Your task to perform on an android device: check google app version Image 0: 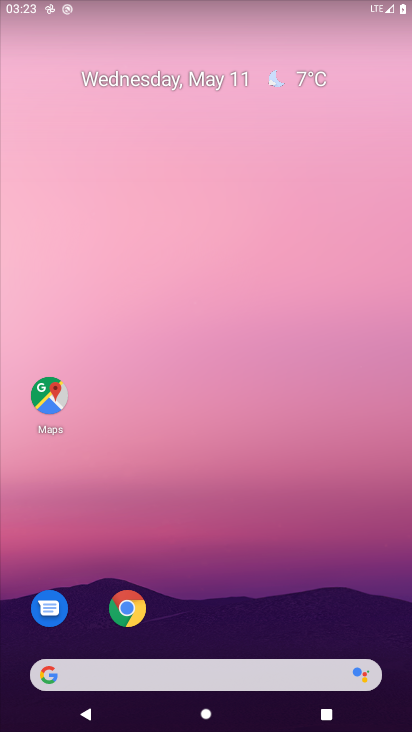
Step 0: drag from (208, 614) to (280, 55)
Your task to perform on an android device: check google app version Image 1: 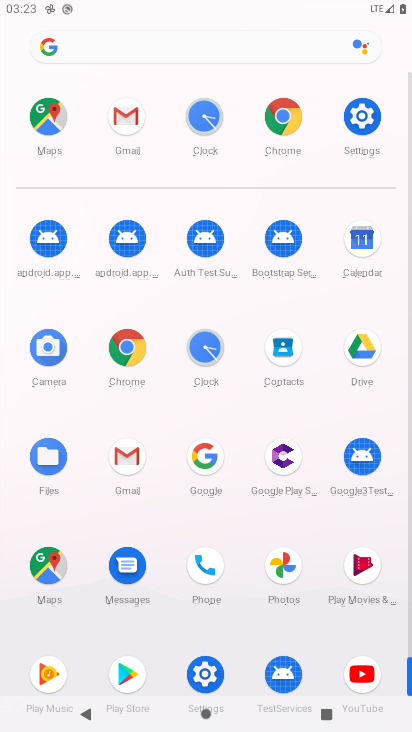
Step 1: click (199, 450)
Your task to perform on an android device: check google app version Image 2: 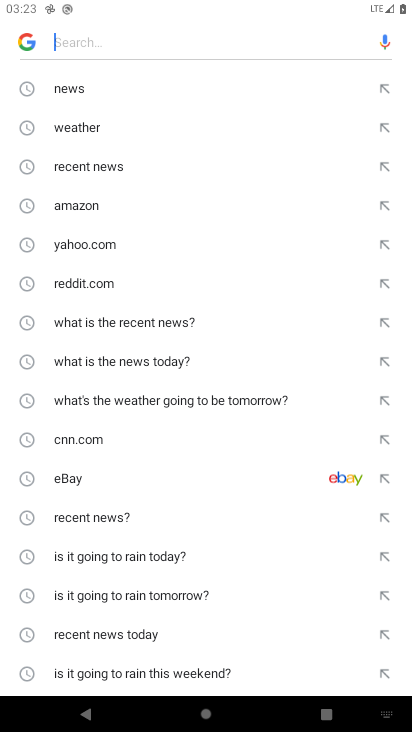
Step 2: task complete